Your task to perform on an android device: check google app version Image 0: 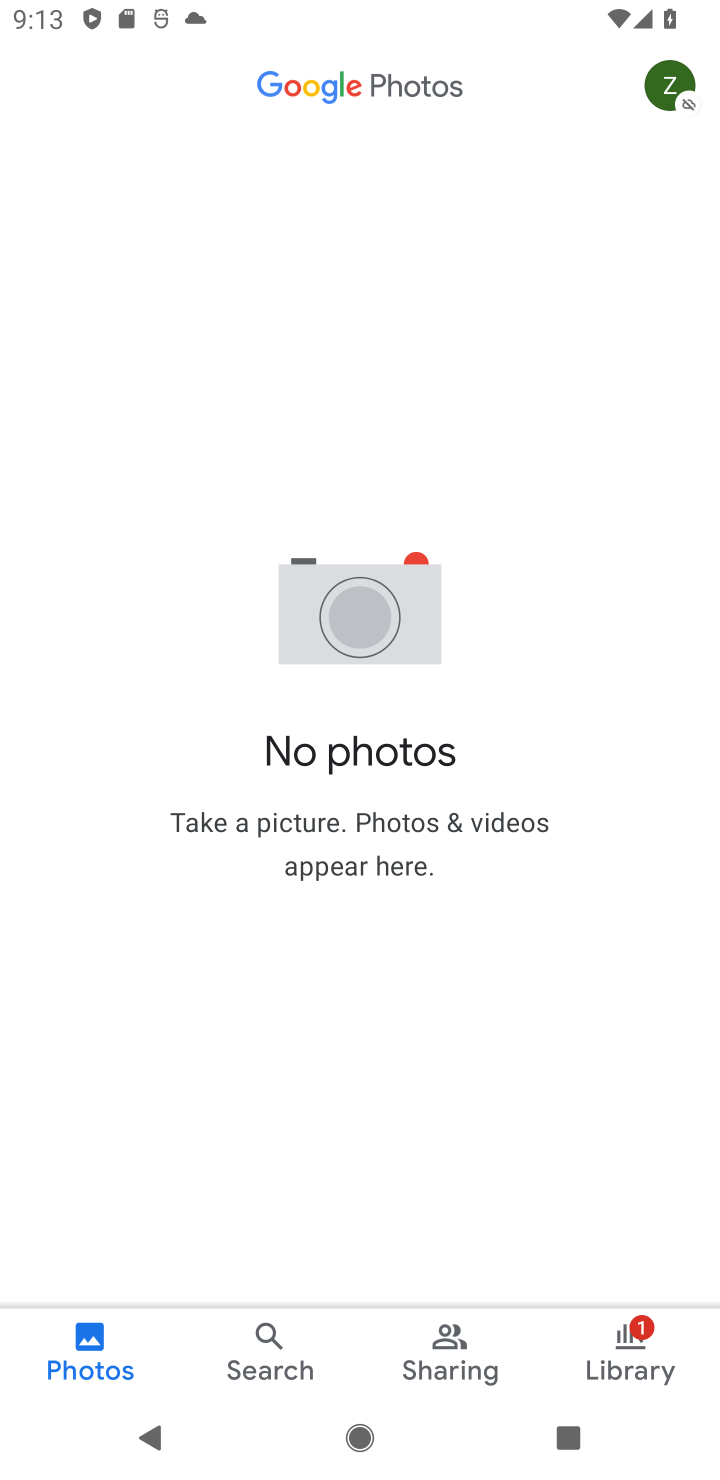
Step 0: task complete